Your task to perform on an android device: Search for seafood restaurants on Google Maps Image 0: 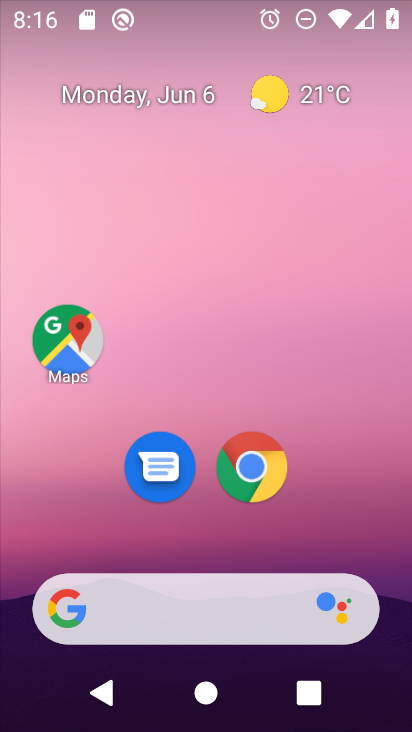
Step 0: drag from (391, 541) to (379, 194)
Your task to perform on an android device: Search for seafood restaurants on Google Maps Image 1: 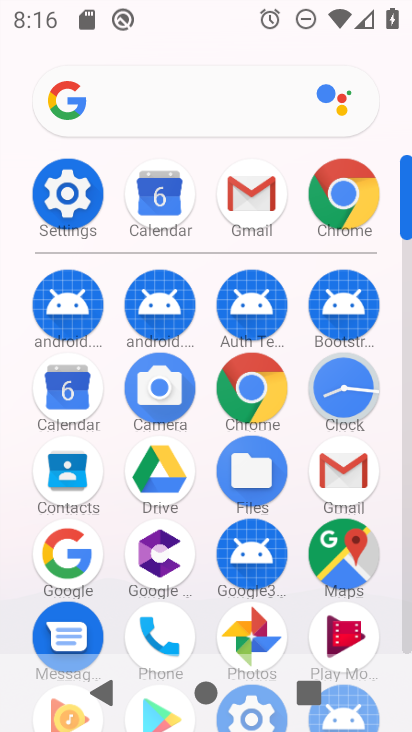
Step 1: click (341, 545)
Your task to perform on an android device: Search for seafood restaurants on Google Maps Image 2: 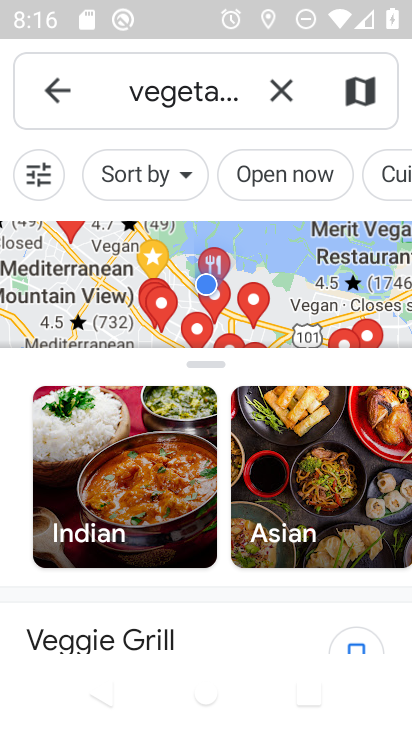
Step 2: click (290, 95)
Your task to perform on an android device: Search for seafood restaurants on Google Maps Image 3: 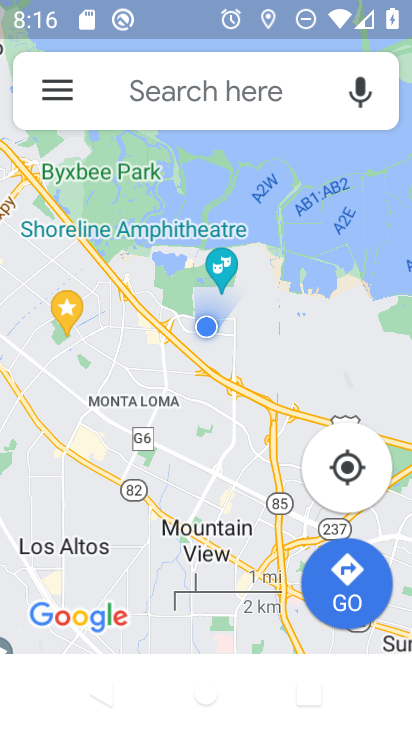
Step 3: click (260, 89)
Your task to perform on an android device: Search for seafood restaurants on Google Maps Image 4: 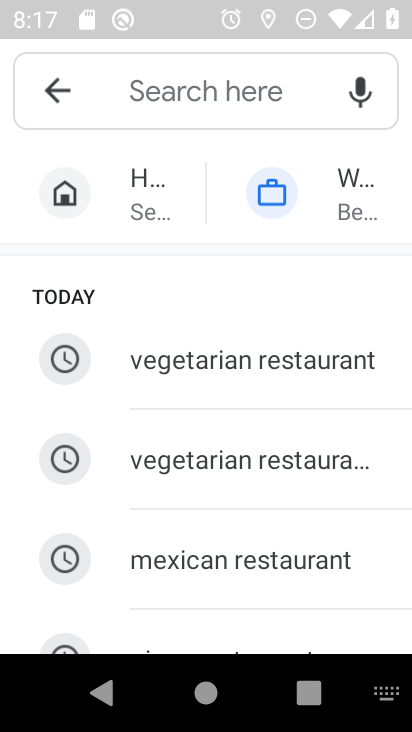
Step 4: type "seafood restaurants"
Your task to perform on an android device: Search for seafood restaurants on Google Maps Image 5: 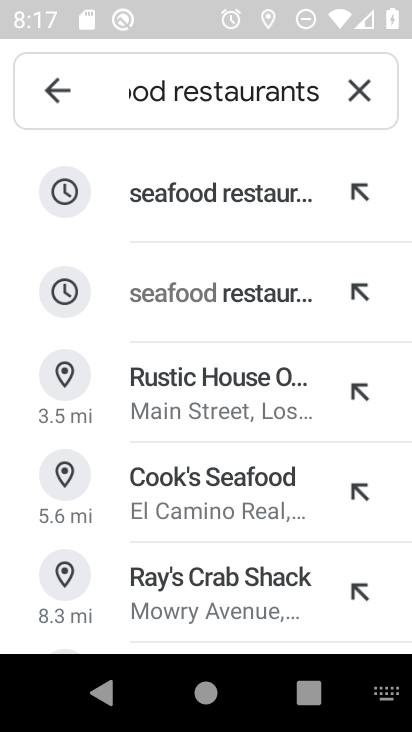
Step 5: click (250, 206)
Your task to perform on an android device: Search for seafood restaurants on Google Maps Image 6: 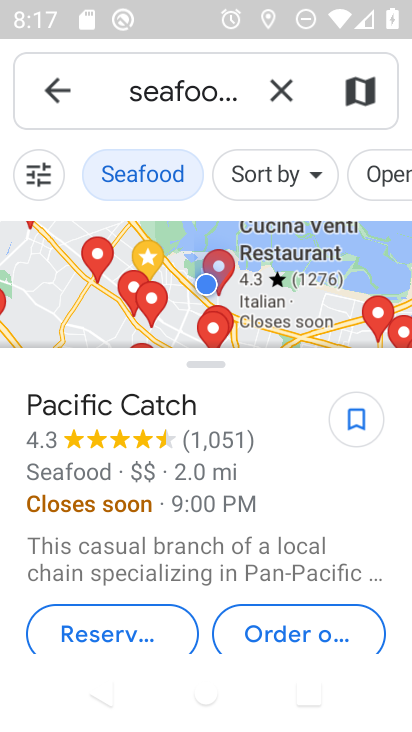
Step 6: task complete